Your task to perform on an android device: turn off sleep mode Image 0: 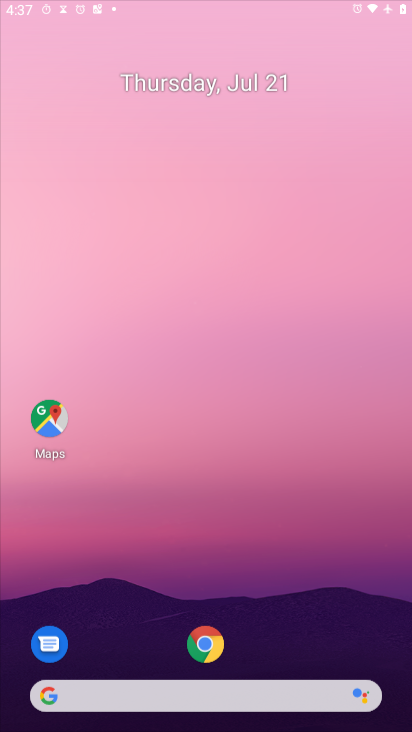
Step 0: press home button
Your task to perform on an android device: turn off sleep mode Image 1: 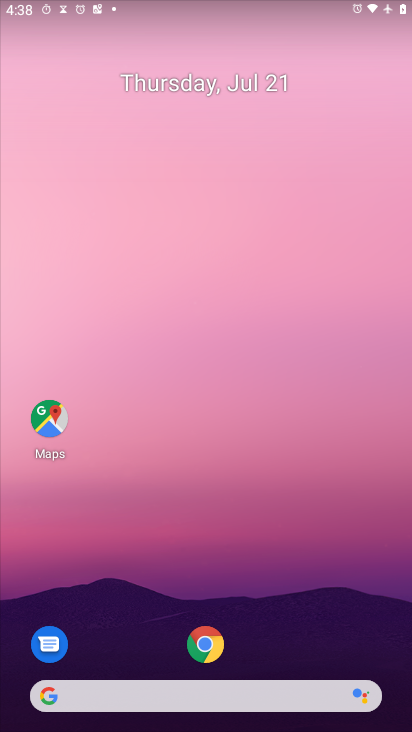
Step 1: drag from (310, 641) to (316, 86)
Your task to perform on an android device: turn off sleep mode Image 2: 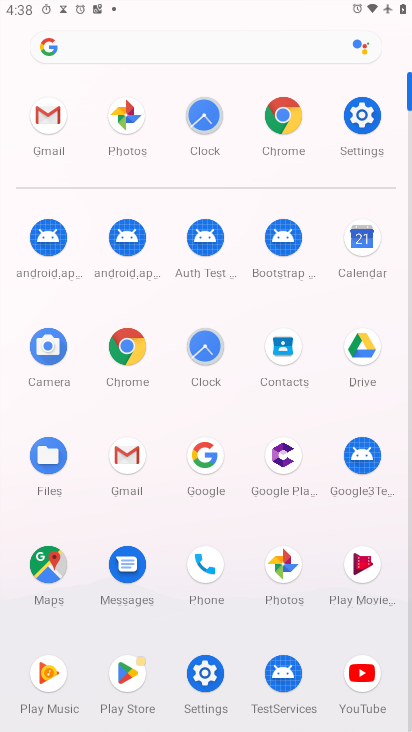
Step 2: click (359, 108)
Your task to perform on an android device: turn off sleep mode Image 3: 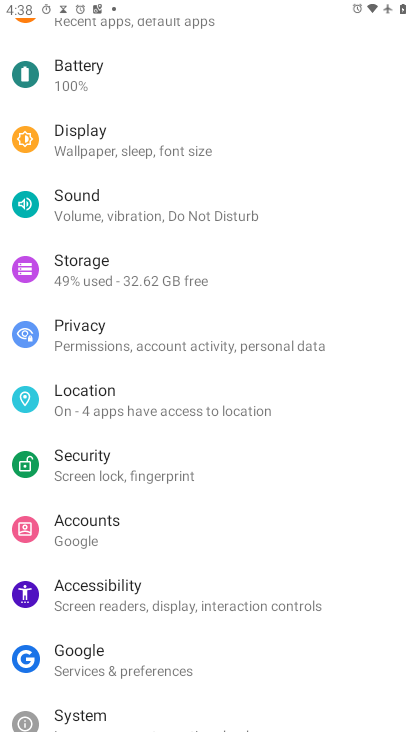
Step 3: click (85, 145)
Your task to perform on an android device: turn off sleep mode Image 4: 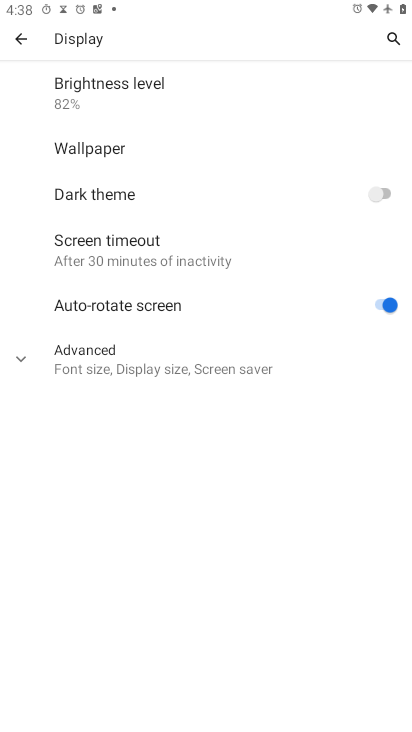
Step 4: task complete